Your task to perform on an android device: add a contact Image 0: 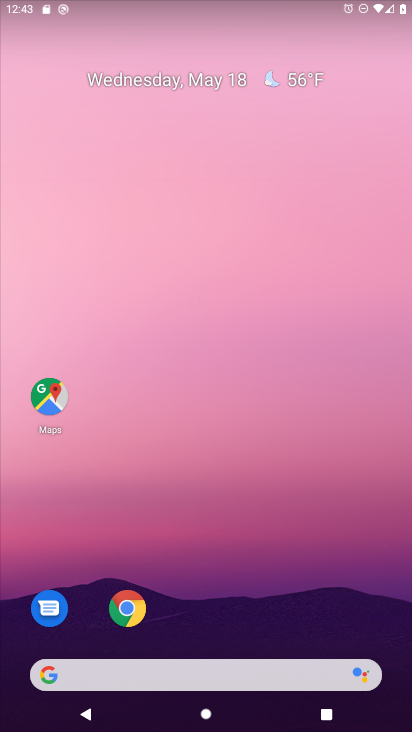
Step 0: drag from (215, 126) to (264, 239)
Your task to perform on an android device: add a contact Image 1: 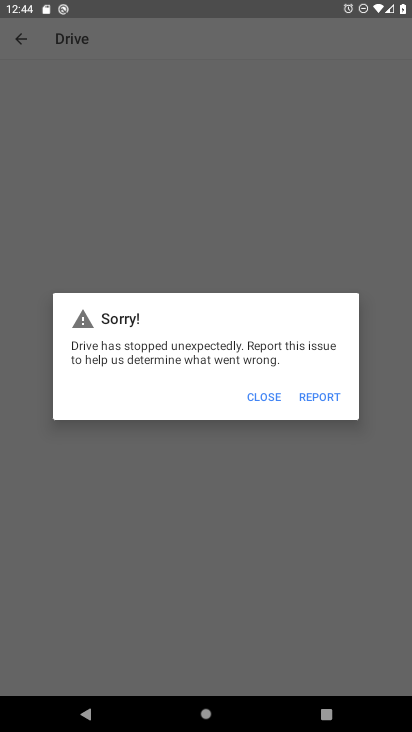
Step 1: press home button
Your task to perform on an android device: add a contact Image 2: 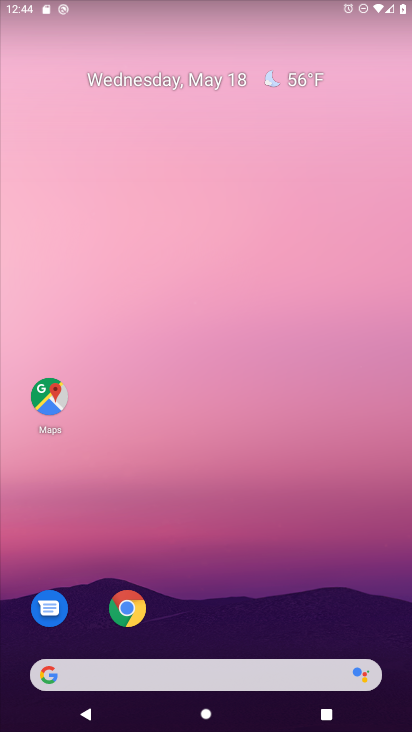
Step 2: drag from (250, 684) to (323, 211)
Your task to perform on an android device: add a contact Image 3: 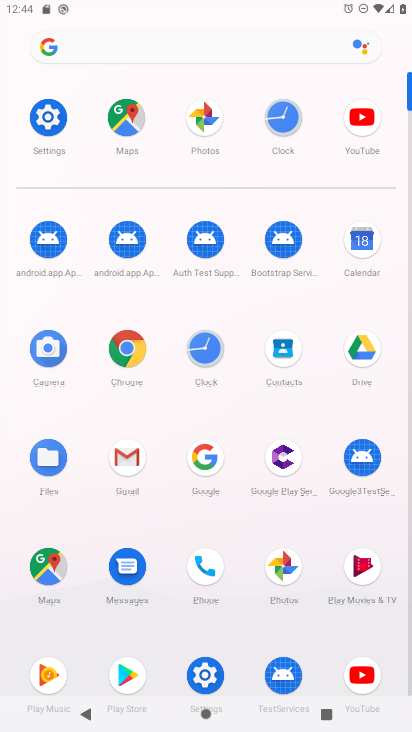
Step 3: click (202, 551)
Your task to perform on an android device: add a contact Image 4: 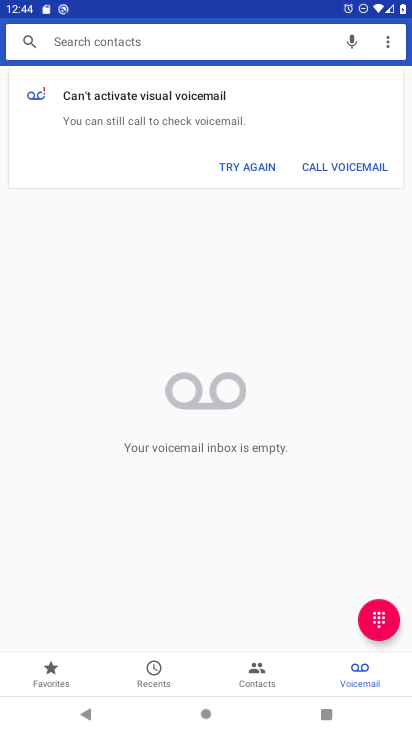
Step 4: click (258, 680)
Your task to perform on an android device: add a contact Image 5: 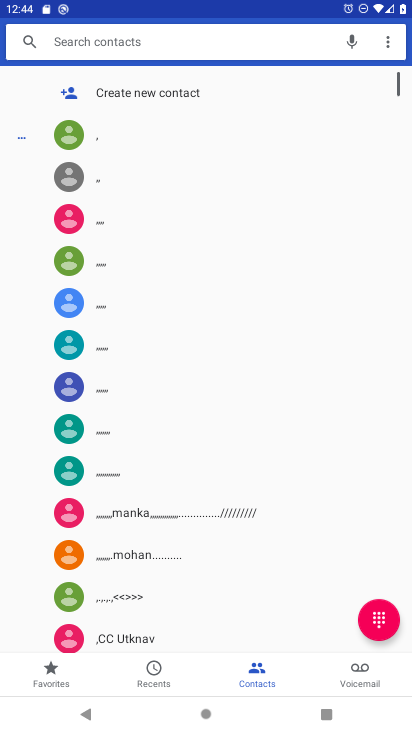
Step 5: click (138, 104)
Your task to perform on an android device: add a contact Image 6: 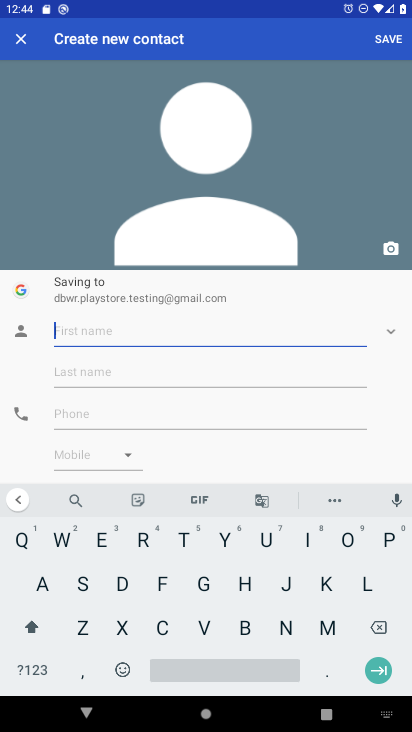
Step 6: click (184, 544)
Your task to perform on an android device: add a contact Image 7: 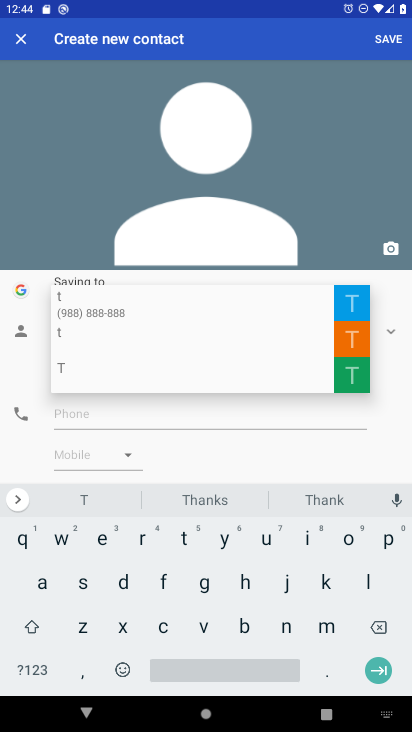
Step 7: click (161, 624)
Your task to perform on an android device: add a contact Image 8: 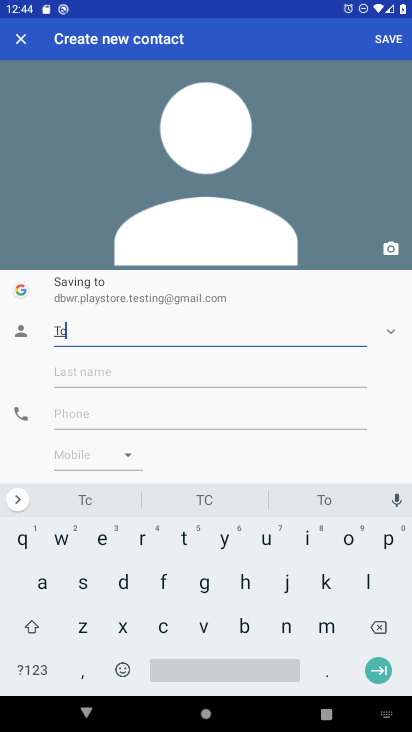
Step 8: click (118, 623)
Your task to perform on an android device: add a contact Image 9: 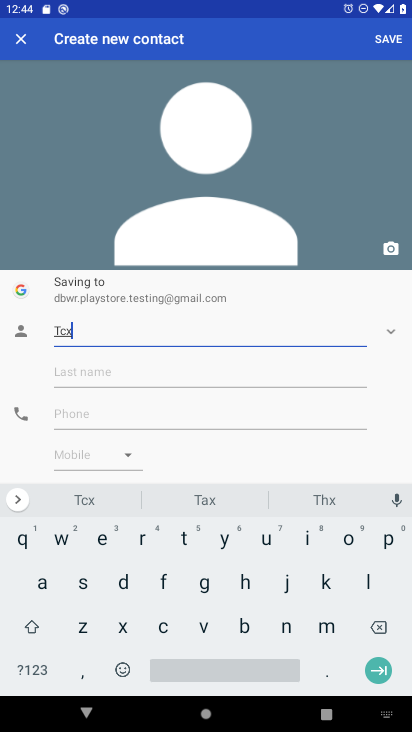
Step 9: click (96, 403)
Your task to perform on an android device: add a contact Image 10: 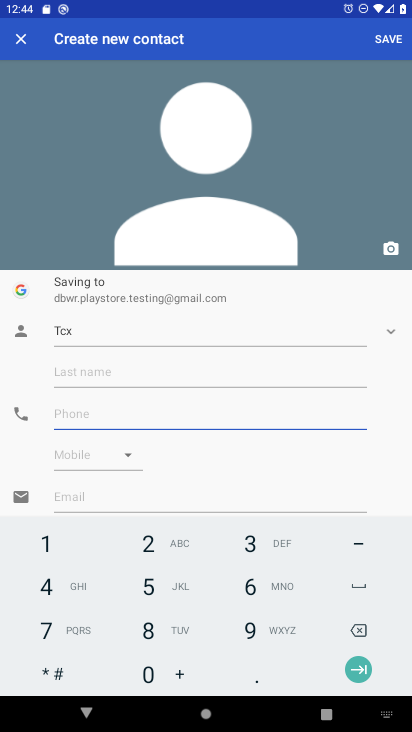
Step 10: click (147, 554)
Your task to perform on an android device: add a contact Image 11: 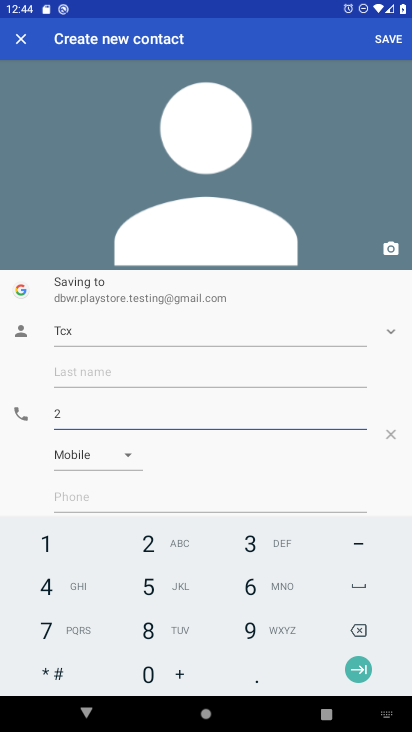
Step 11: click (138, 610)
Your task to perform on an android device: add a contact Image 12: 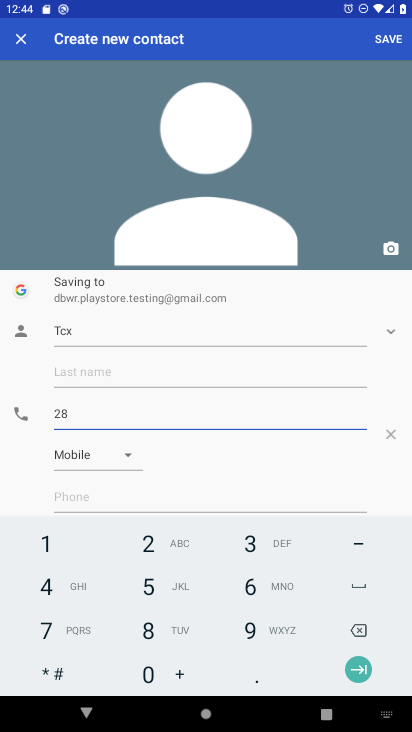
Step 12: click (135, 607)
Your task to perform on an android device: add a contact Image 13: 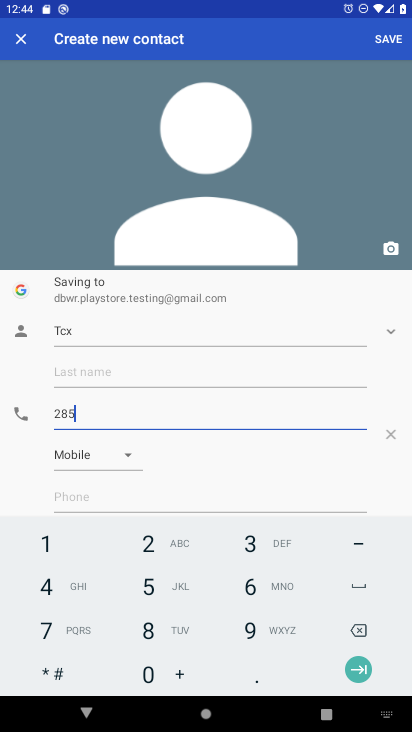
Step 13: click (135, 607)
Your task to perform on an android device: add a contact Image 14: 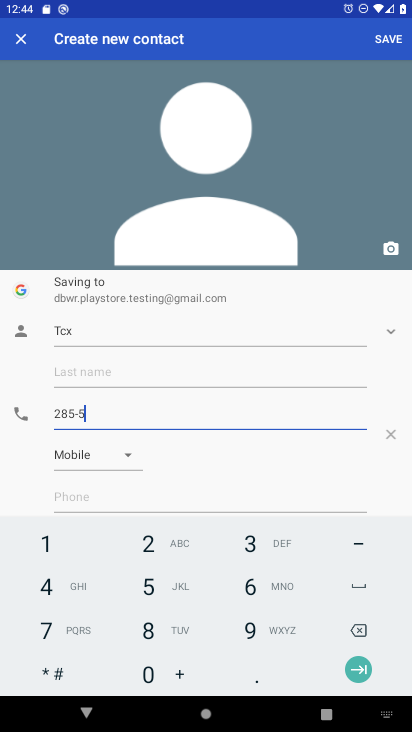
Step 14: click (178, 607)
Your task to perform on an android device: add a contact Image 15: 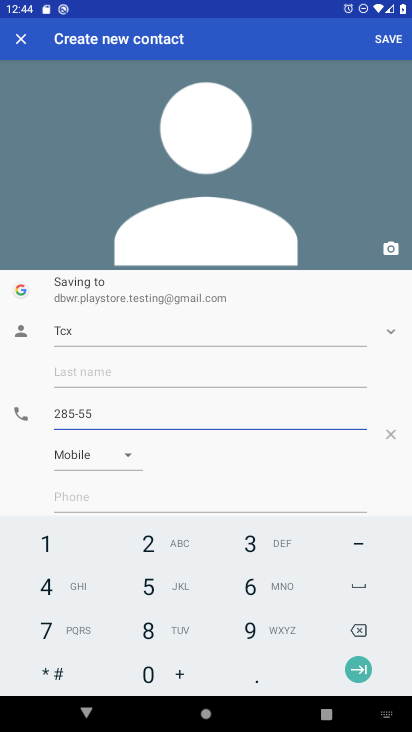
Step 15: click (49, 641)
Your task to perform on an android device: add a contact Image 16: 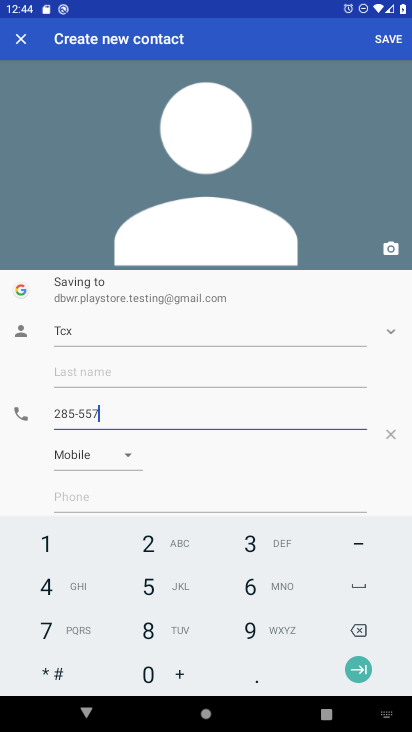
Step 16: click (67, 588)
Your task to perform on an android device: add a contact Image 17: 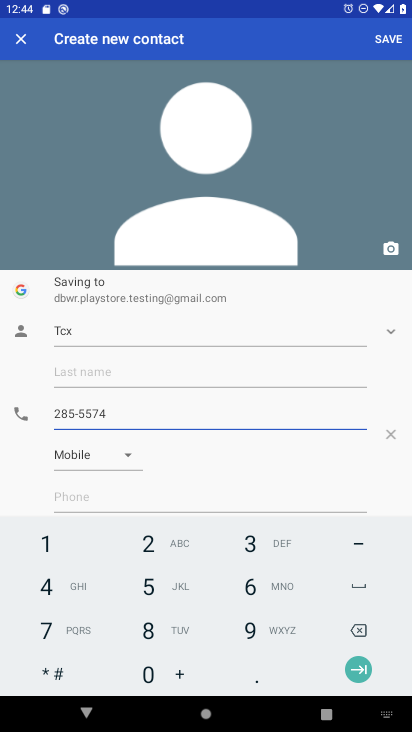
Step 17: click (234, 617)
Your task to perform on an android device: add a contact Image 18: 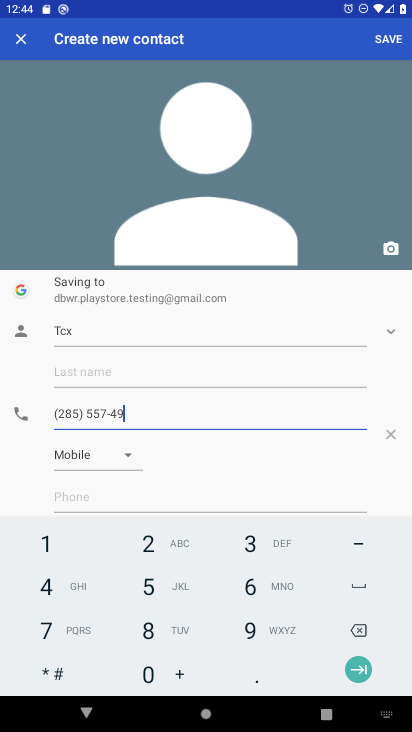
Step 18: click (177, 610)
Your task to perform on an android device: add a contact Image 19: 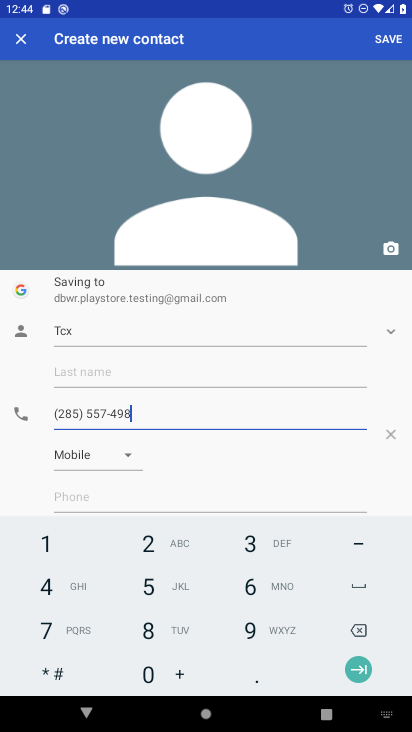
Step 19: click (394, 34)
Your task to perform on an android device: add a contact Image 20: 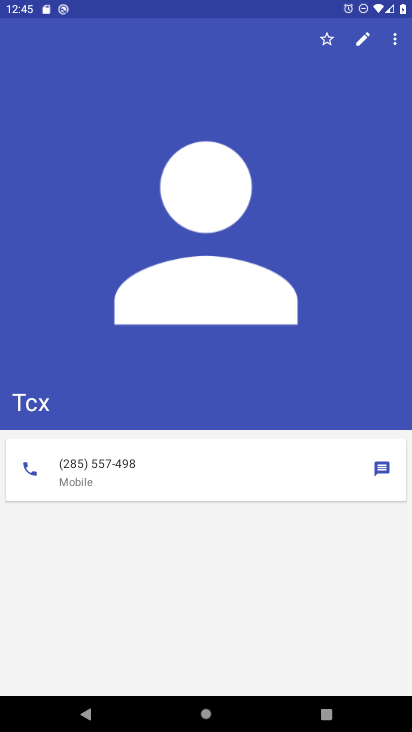
Step 20: task complete